Your task to perform on an android device: Open Amazon Image 0: 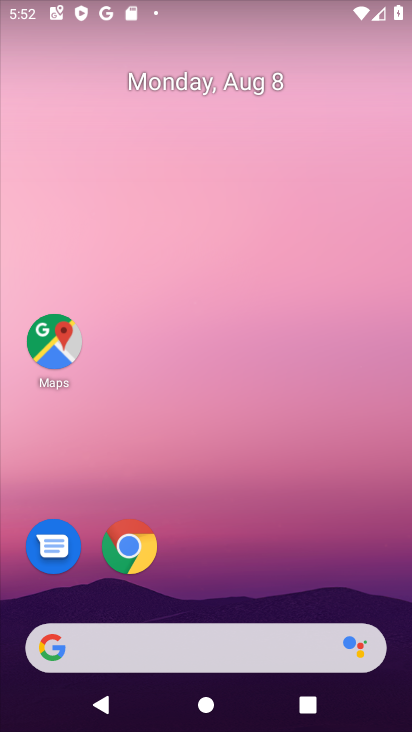
Step 0: click (138, 542)
Your task to perform on an android device: Open Amazon Image 1: 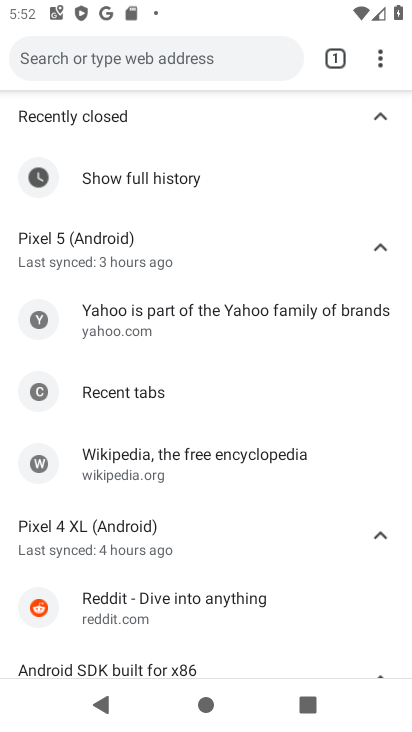
Step 1: click (342, 58)
Your task to perform on an android device: Open Amazon Image 2: 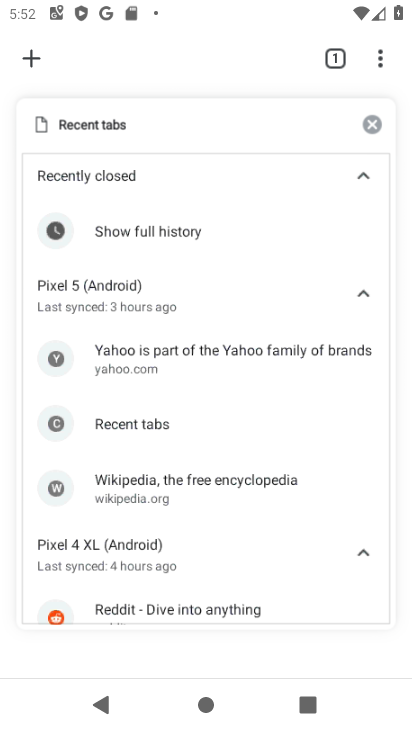
Step 2: click (33, 56)
Your task to perform on an android device: Open Amazon Image 3: 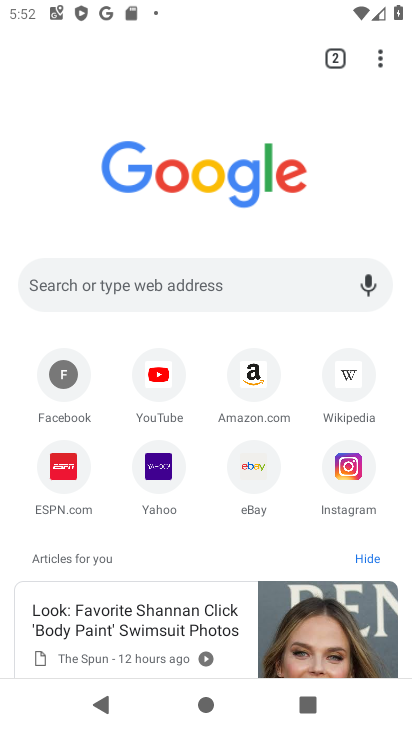
Step 3: click (254, 400)
Your task to perform on an android device: Open Amazon Image 4: 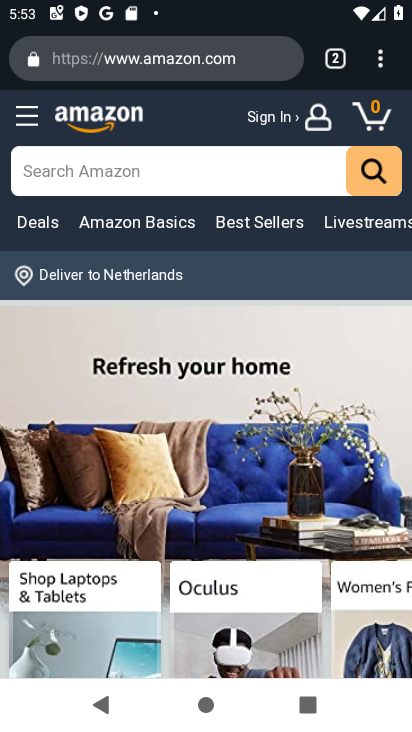
Step 4: task complete